Your task to perform on an android device: Open Chrome and go to settings Image 0: 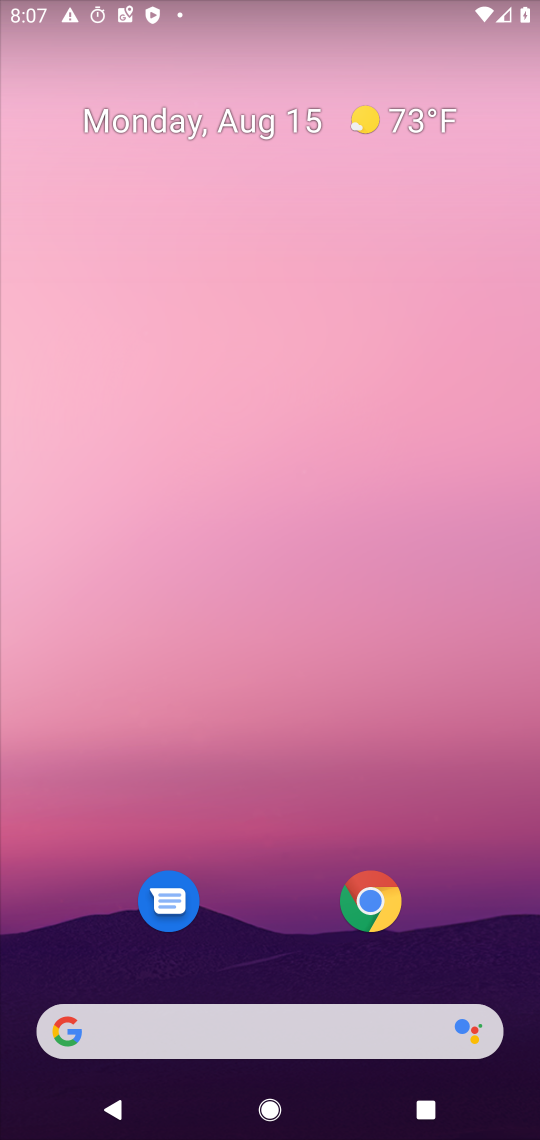
Step 0: click (367, 901)
Your task to perform on an android device: Open Chrome and go to settings Image 1: 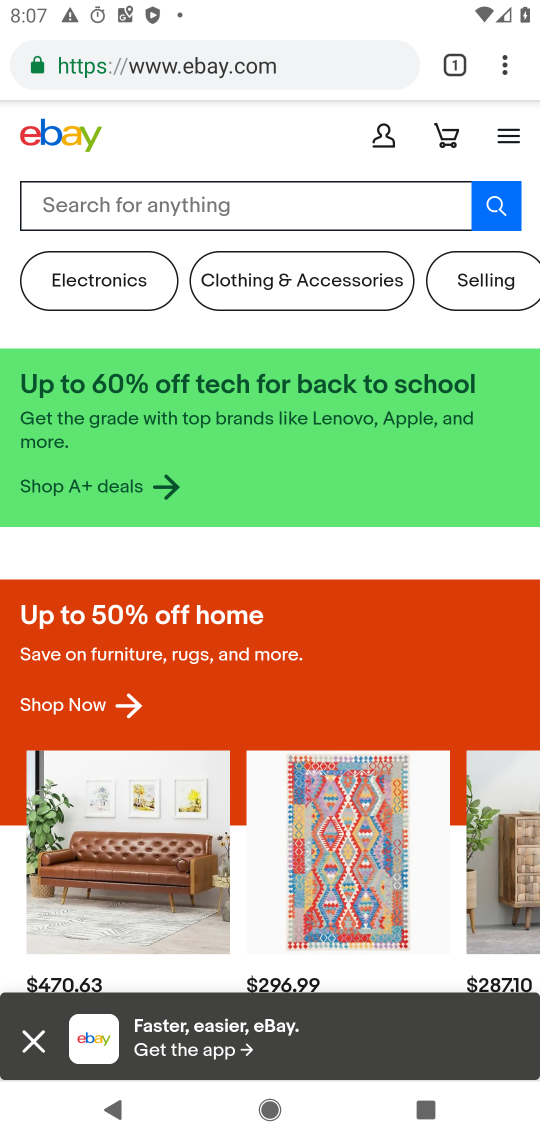
Step 1: click (502, 62)
Your task to perform on an android device: Open Chrome and go to settings Image 2: 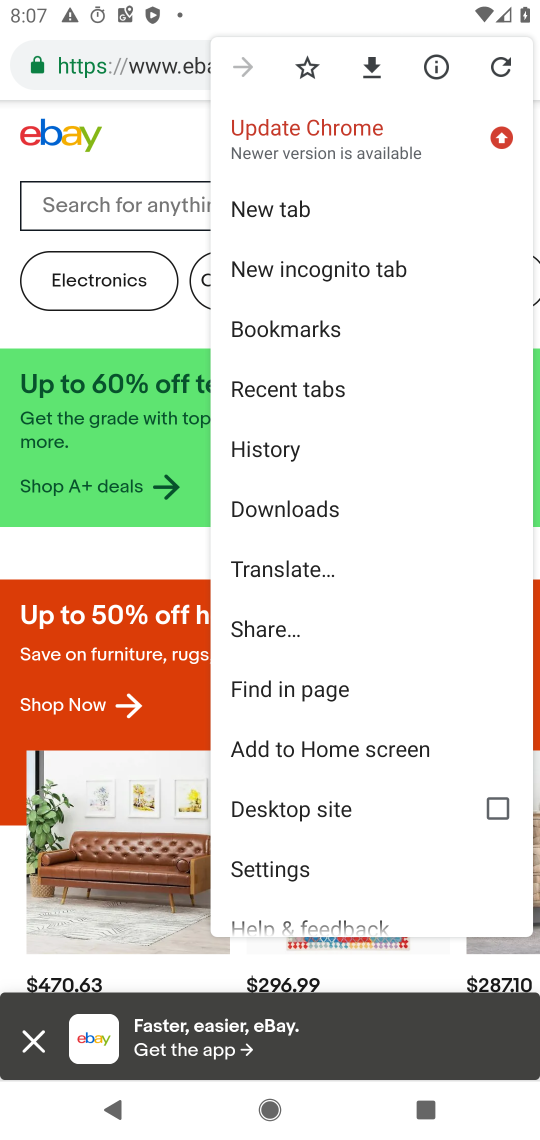
Step 2: click (284, 876)
Your task to perform on an android device: Open Chrome and go to settings Image 3: 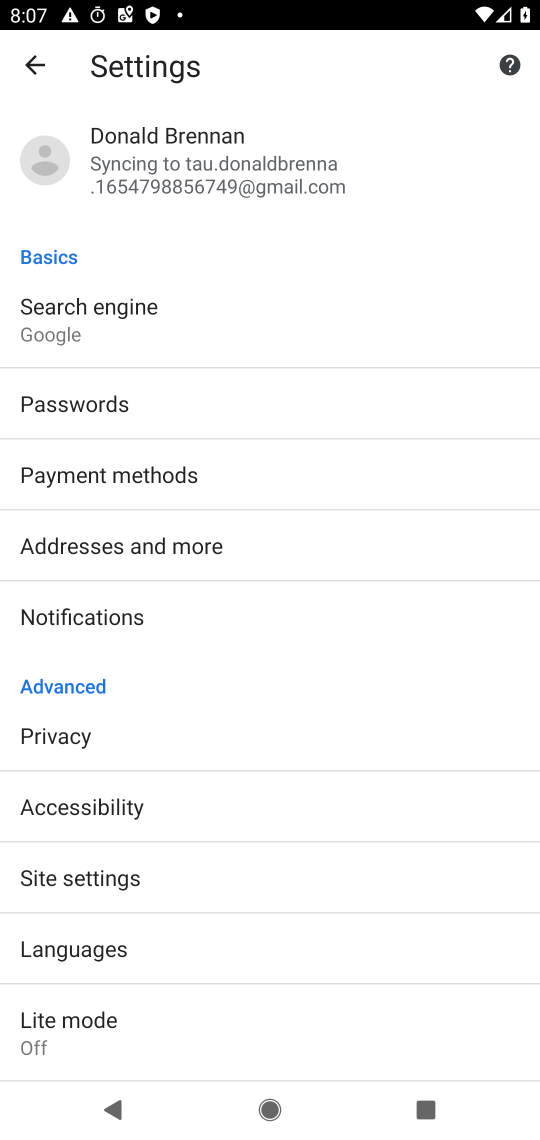
Step 3: task complete